Your task to perform on an android device: turn notification dots on Image 0: 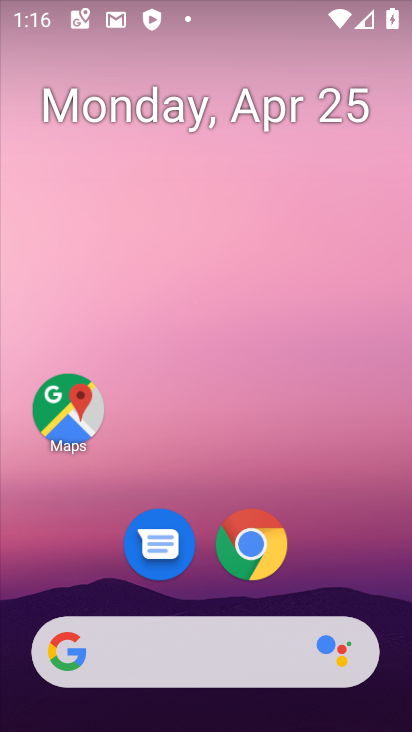
Step 0: drag from (93, 611) to (236, 125)
Your task to perform on an android device: turn notification dots on Image 1: 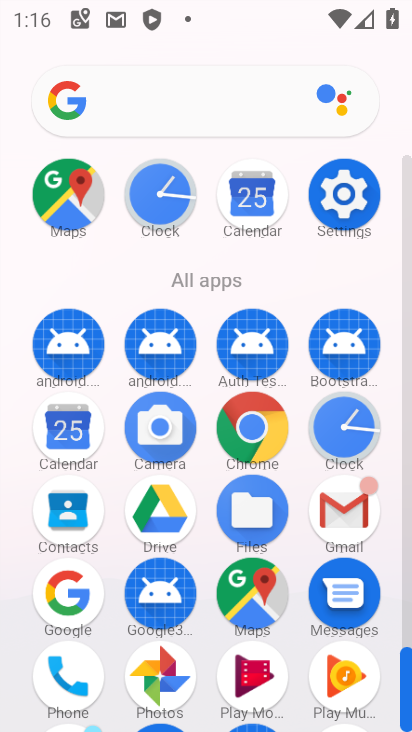
Step 1: click (354, 197)
Your task to perform on an android device: turn notification dots on Image 2: 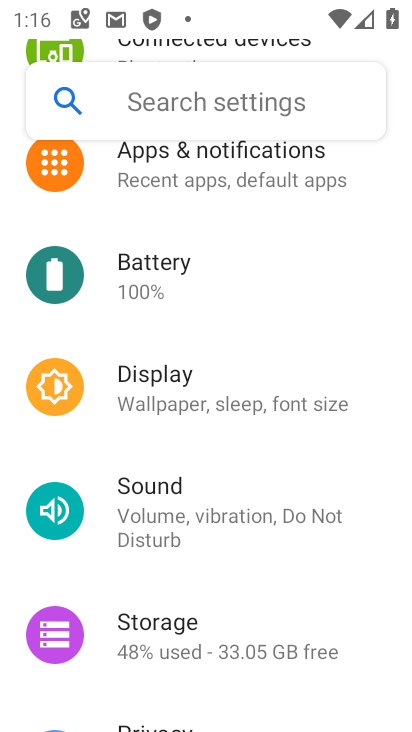
Step 2: click (282, 183)
Your task to perform on an android device: turn notification dots on Image 3: 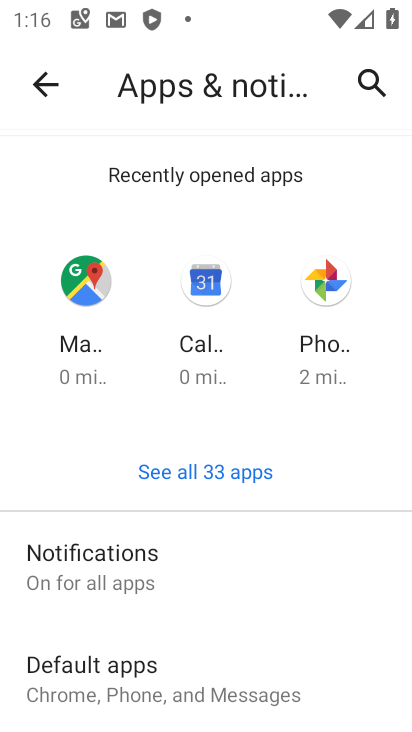
Step 3: click (163, 573)
Your task to perform on an android device: turn notification dots on Image 4: 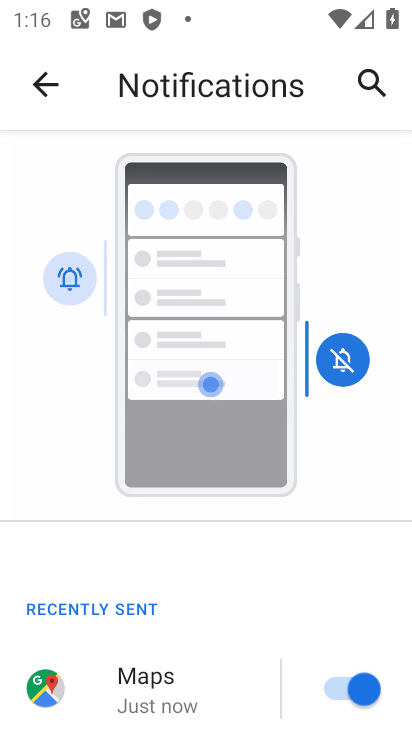
Step 4: drag from (112, 694) to (276, 131)
Your task to perform on an android device: turn notification dots on Image 5: 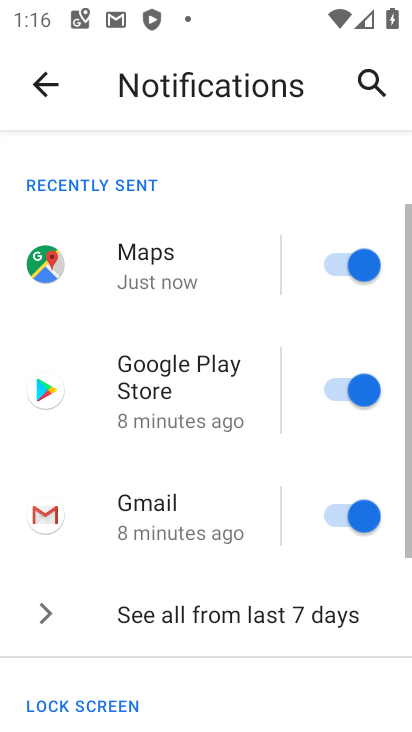
Step 5: drag from (167, 571) to (297, 142)
Your task to perform on an android device: turn notification dots on Image 6: 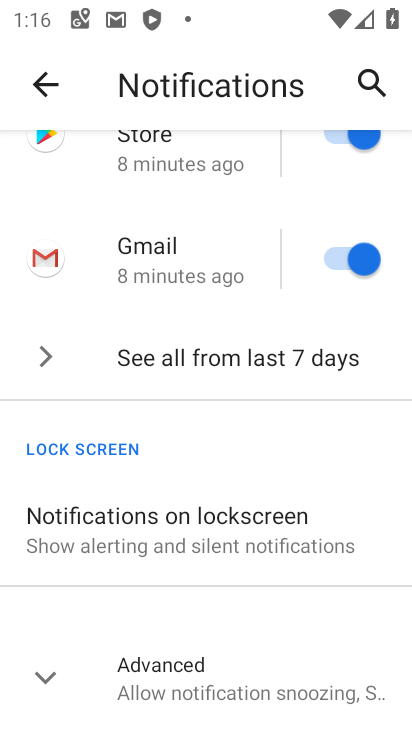
Step 6: click (200, 674)
Your task to perform on an android device: turn notification dots on Image 7: 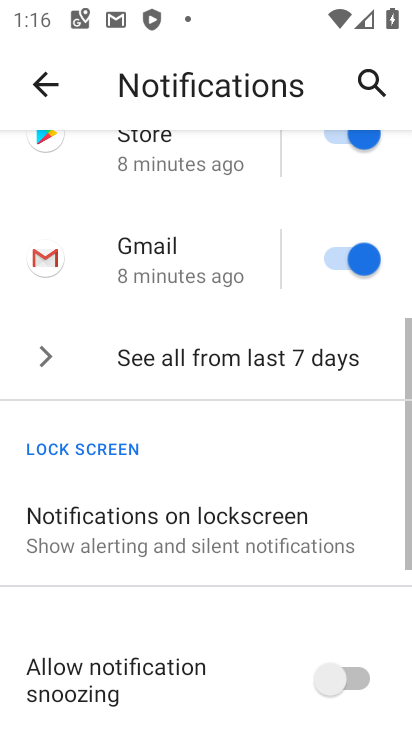
Step 7: task complete